Your task to perform on an android device: star an email in the gmail app Image 0: 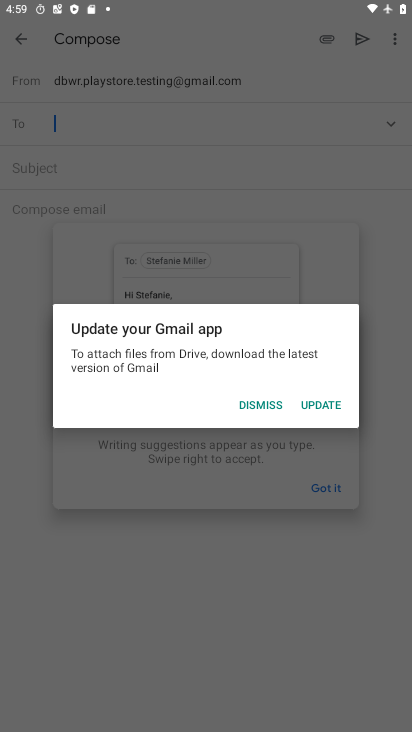
Step 0: press back button
Your task to perform on an android device: star an email in the gmail app Image 1: 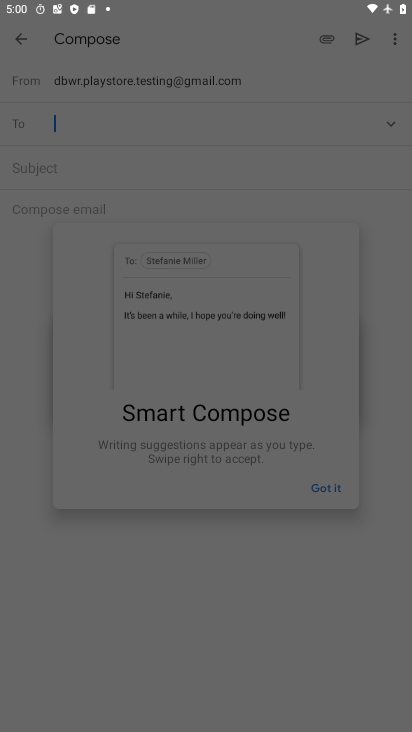
Step 1: press home button
Your task to perform on an android device: star an email in the gmail app Image 2: 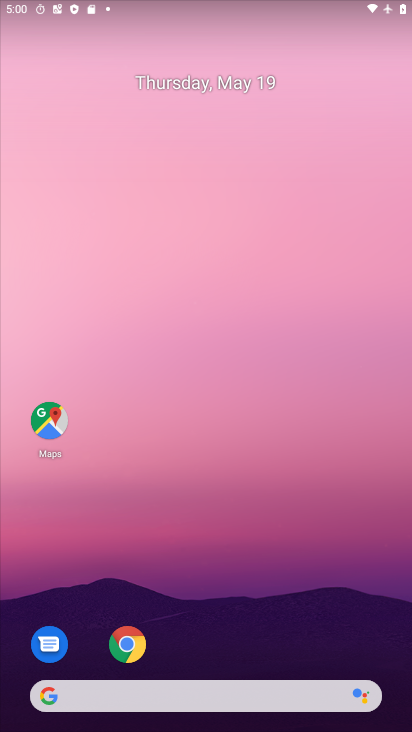
Step 2: drag from (167, 669) to (183, 233)
Your task to perform on an android device: star an email in the gmail app Image 3: 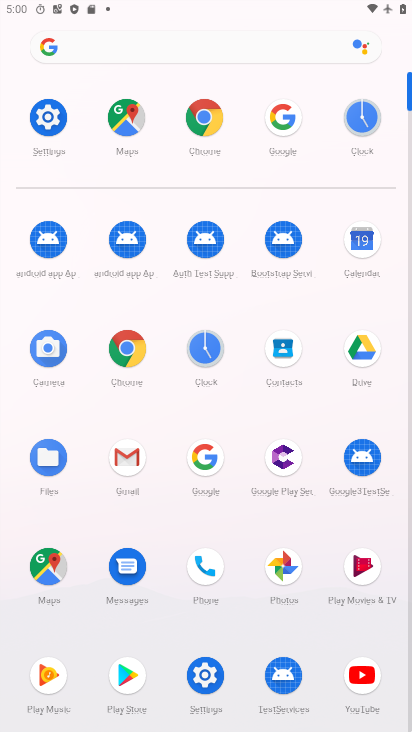
Step 3: click (132, 457)
Your task to perform on an android device: star an email in the gmail app Image 4: 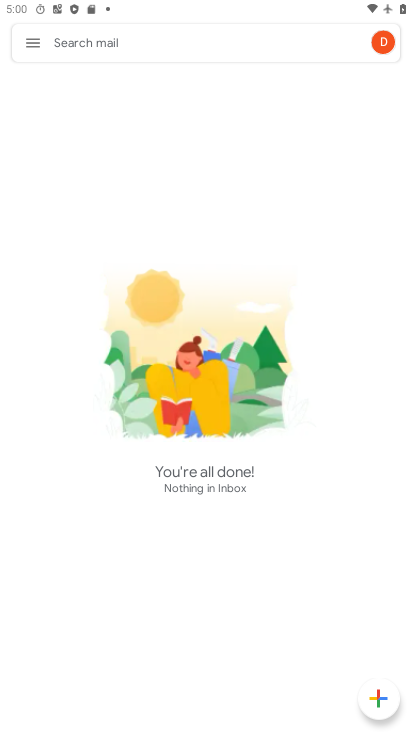
Step 4: task complete